Your task to perform on an android device: Open Yahoo.com Image 0: 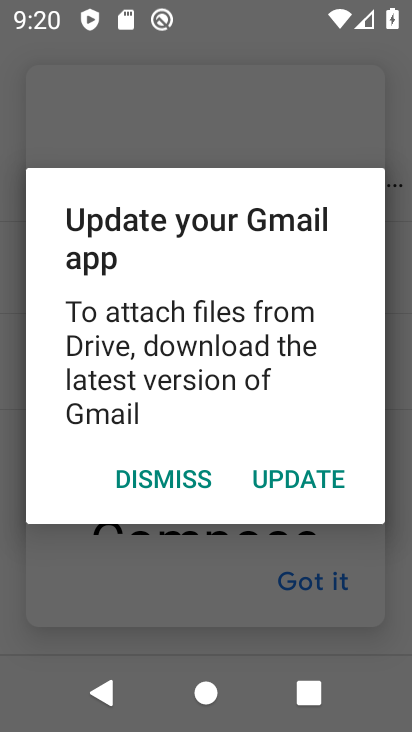
Step 0: press home button
Your task to perform on an android device: Open Yahoo.com Image 1: 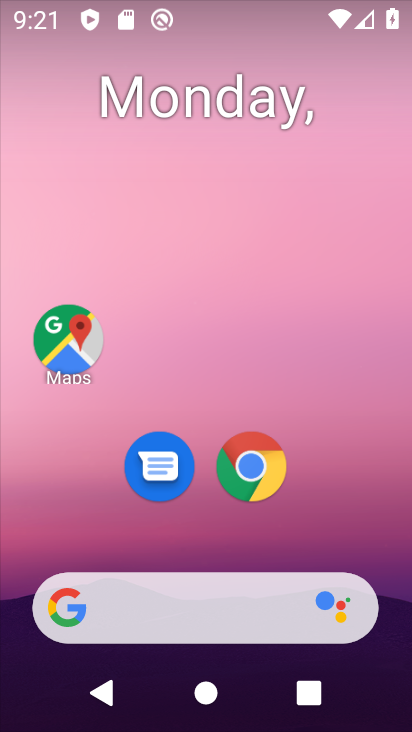
Step 1: click (255, 471)
Your task to perform on an android device: Open Yahoo.com Image 2: 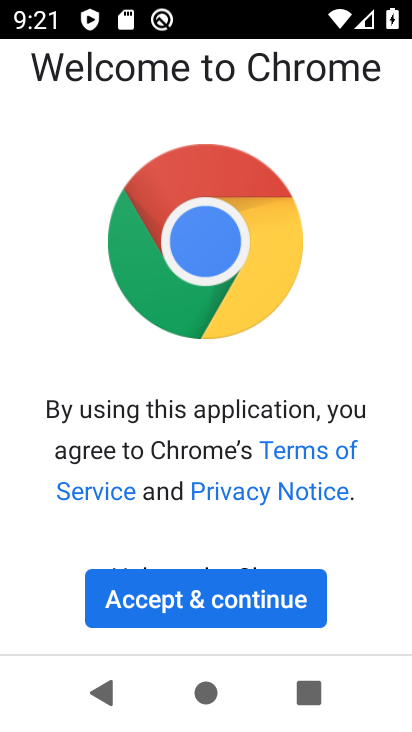
Step 2: click (253, 609)
Your task to perform on an android device: Open Yahoo.com Image 3: 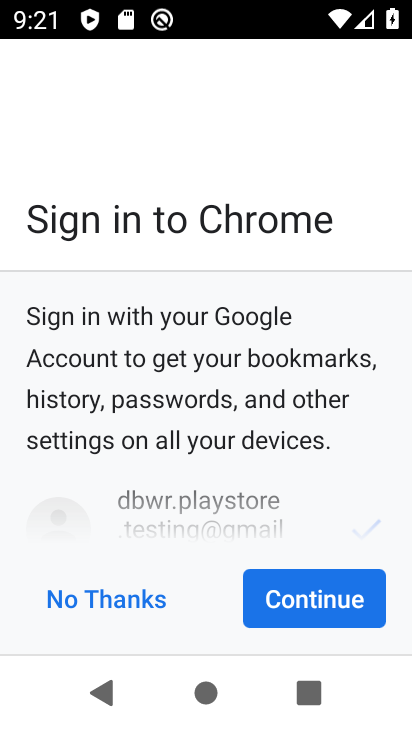
Step 3: click (328, 595)
Your task to perform on an android device: Open Yahoo.com Image 4: 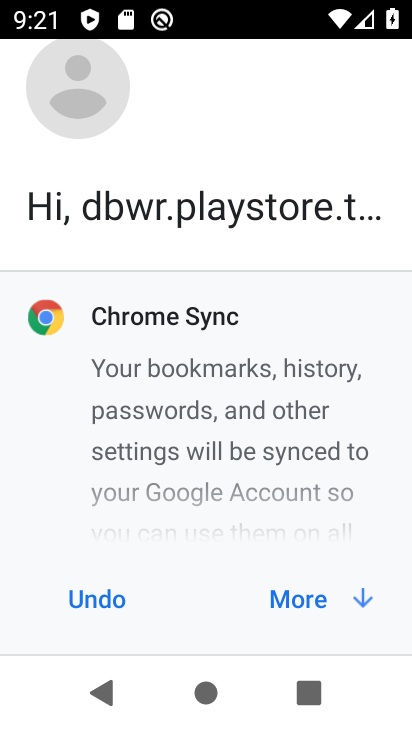
Step 4: click (328, 595)
Your task to perform on an android device: Open Yahoo.com Image 5: 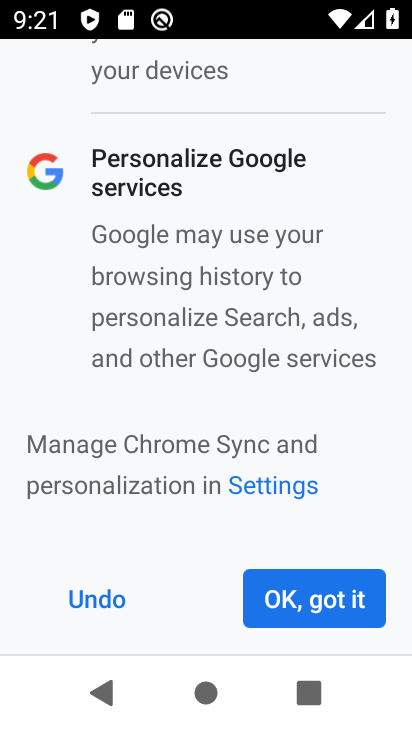
Step 5: click (328, 595)
Your task to perform on an android device: Open Yahoo.com Image 6: 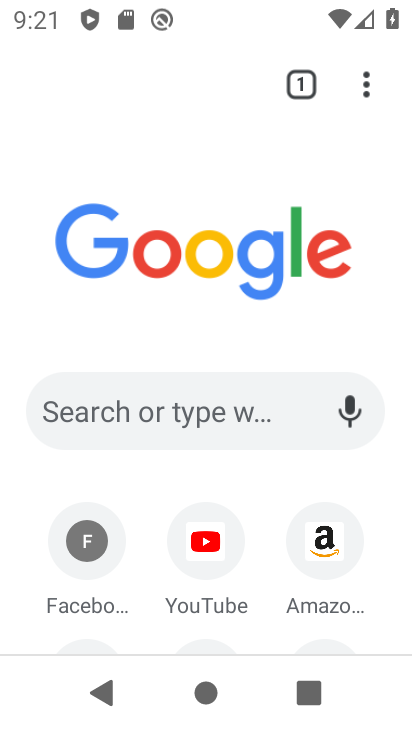
Step 6: click (189, 410)
Your task to perform on an android device: Open Yahoo.com Image 7: 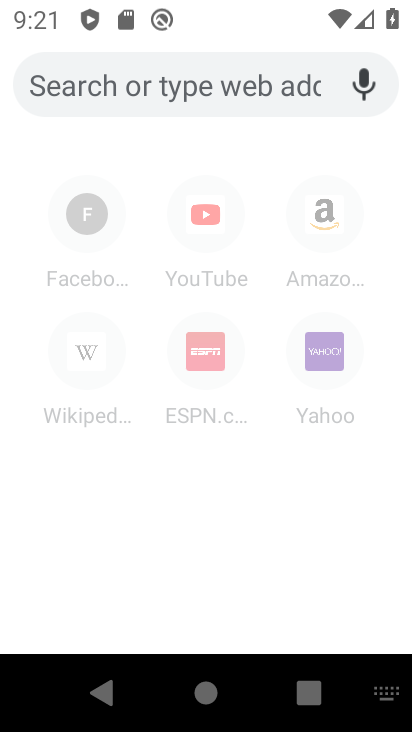
Step 7: type " Yahoo.com"
Your task to perform on an android device: Open Yahoo.com Image 8: 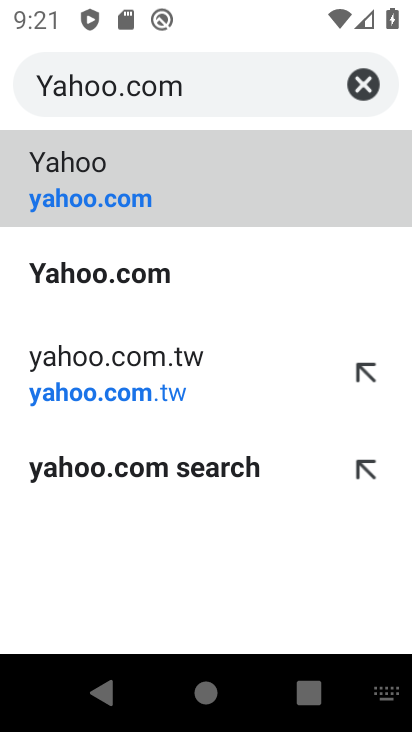
Step 8: click (65, 201)
Your task to perform on an android device: Open Yahoo.com Image 9: 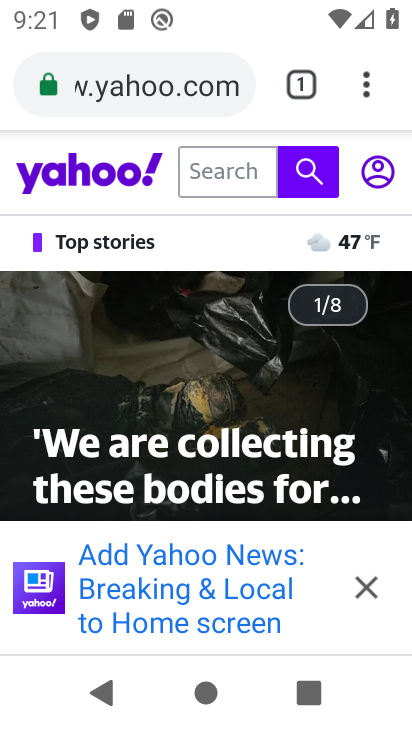
Step 9: task complete